Your task to perform on an android device: delete browsing data in the chrome app Image 0: 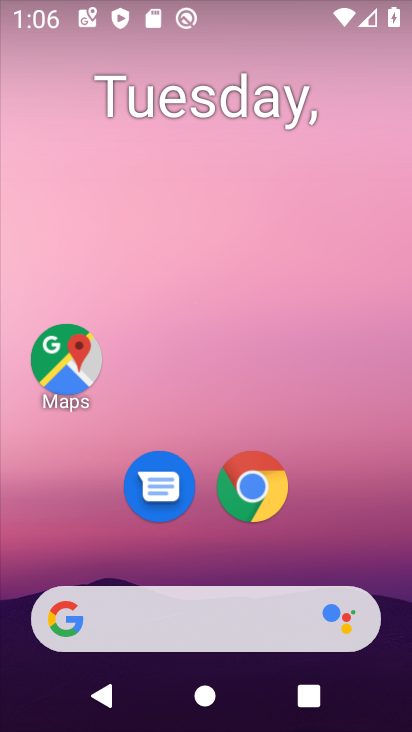
Step 0: drag from (371, 549) to (270, 202)
Your task to perform on an android device: delete browsing data in the chrome app Image 1: 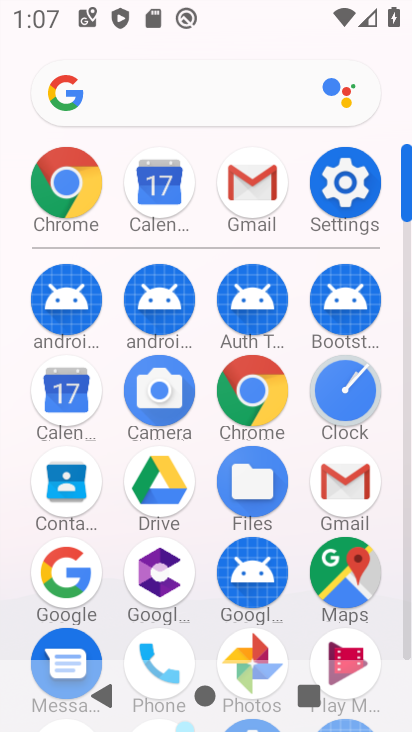
Step 1: click (66, 184)
Your task to perform on an android device: delete browsing data in the chrome app Image 2: 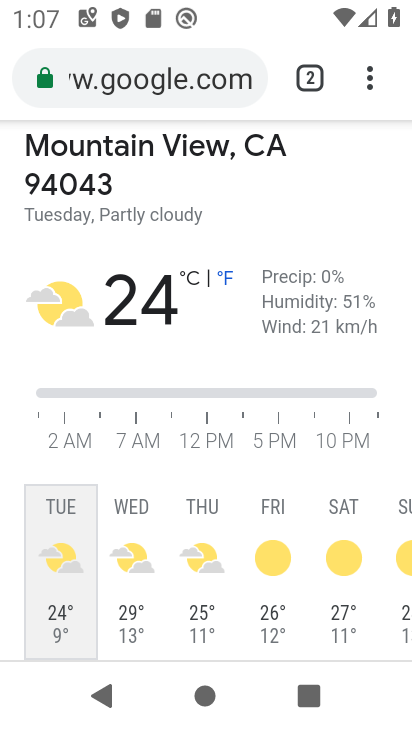
Step 2: click (364, 76)
Your task to perform on an android device: delete browsing data in the chrome app Image 3: 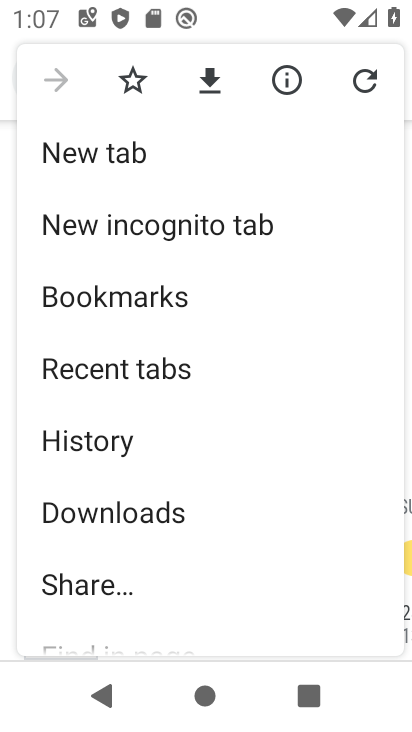
Step 3: click (169, 439)
Your task to perform on an android device: delete browsing data in the chrome app Image 4: 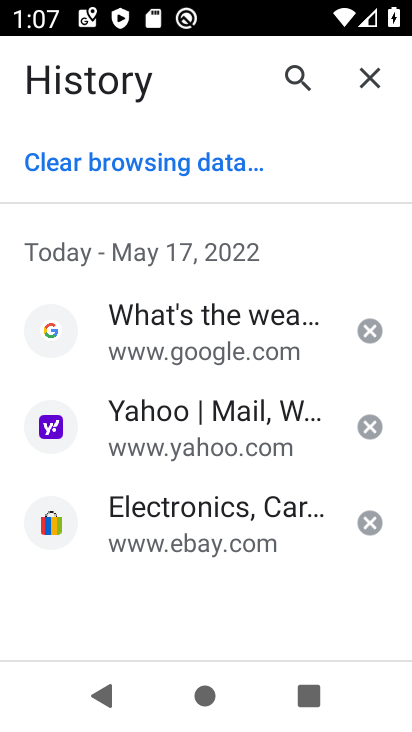
Step 4: click (185, 164)
Your task to perform on an android device: delete browsing data in the chrome app Image 5: 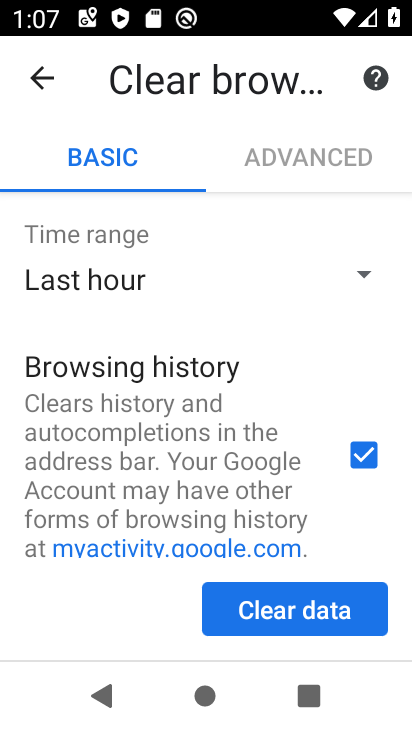
Step 5: click (321, 606)
Your task to perform on an android device: delete browsing data in the chrome app Image 6: 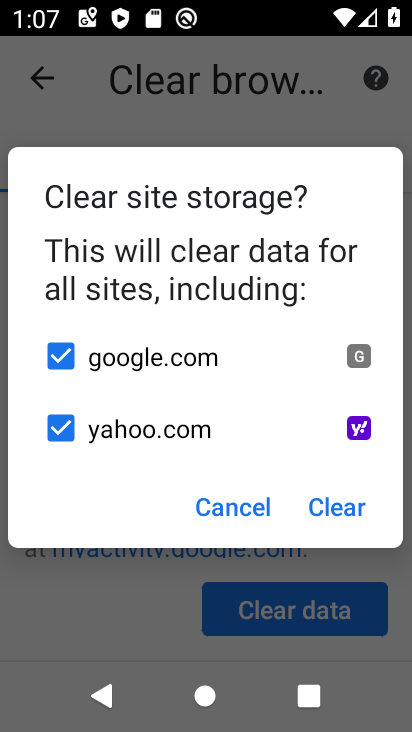
Step 6: click (338, 504)
Your task to perform on an android device: delete browsing data in the chrome app Image 7: 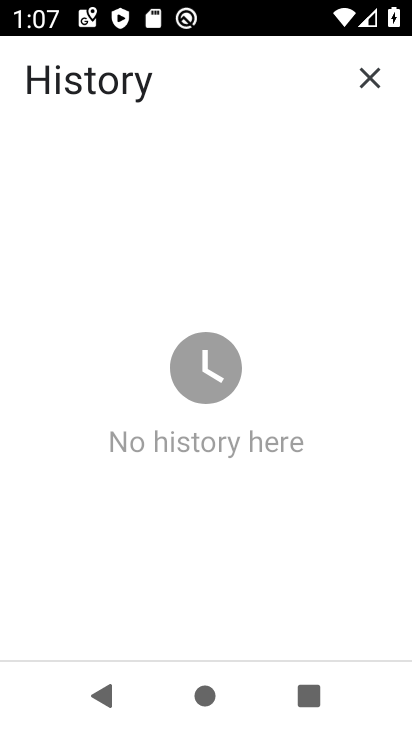
Step 7: task complete